Your task to perform on an android device: open sync settings in chrome Image 0: 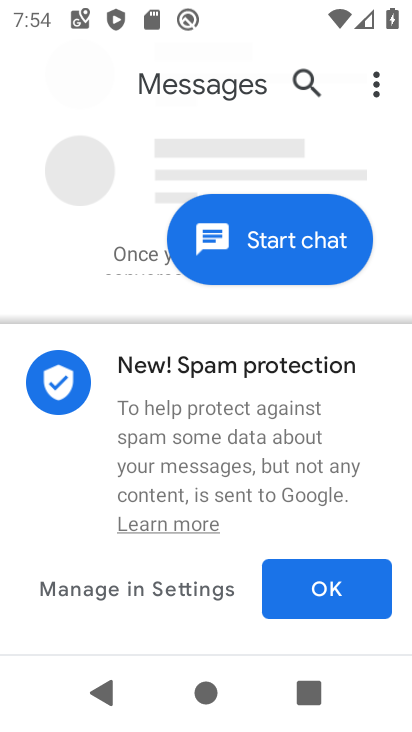
Step 0: press home button
Your task to perform on an android device: open sync settings in chrome Image 1: 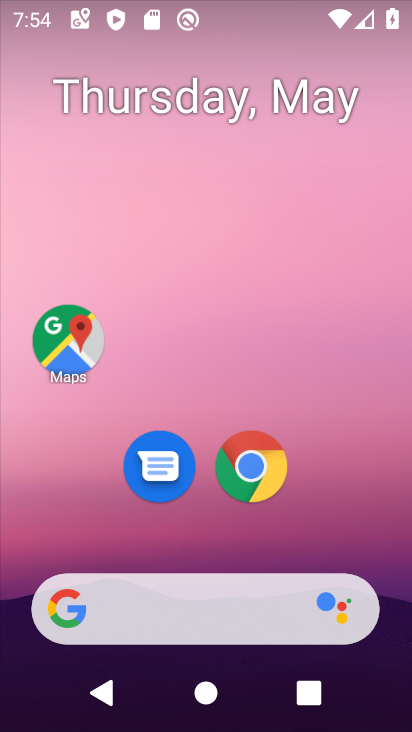
Step 1: click (257, 454)
Your task to perform on an android device: open sync settings in chrome Image 2: 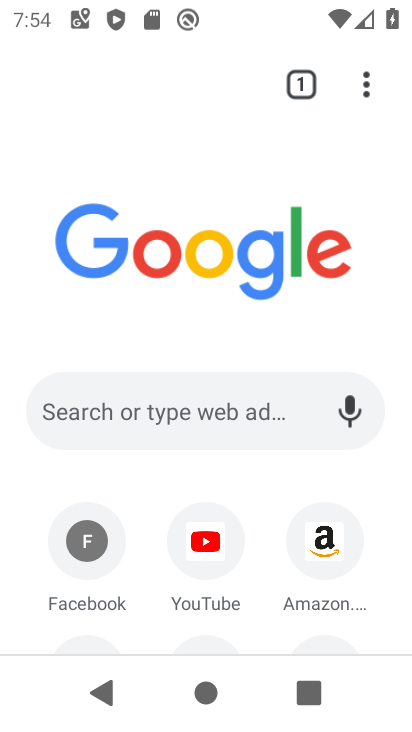
Step 2: click (365, 82)
Your task to perform on an android device: open sync settings in chrome Image 3: 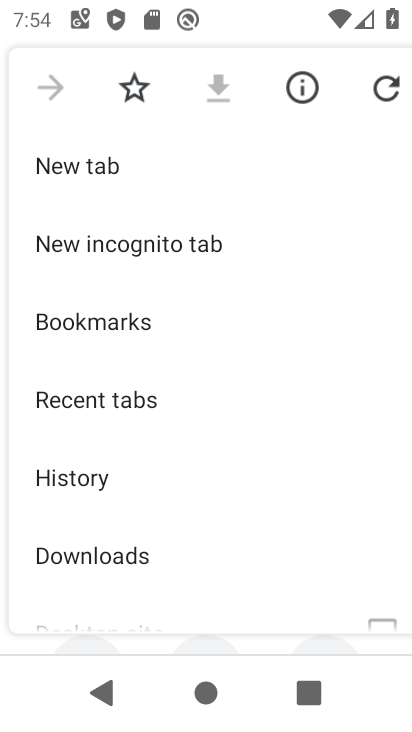
Step 3: drag from (222, 517) to (177, 131)
Your task to perform on an android device: open sync settings in chrome Image 4: 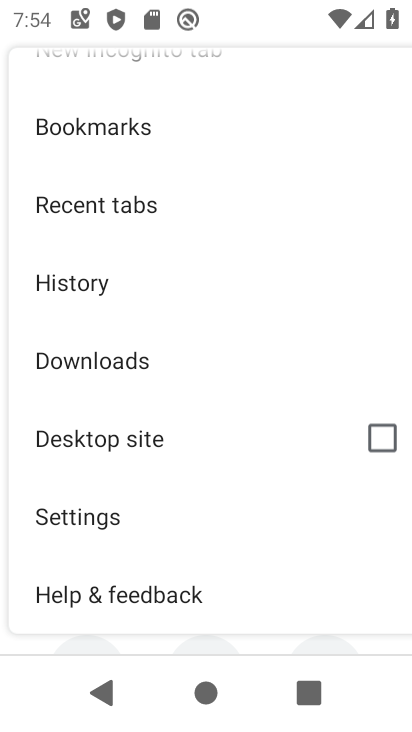
Step 4: click (56, 527)
Your task to perform on an android device: open sync settings in chrome Image 5: 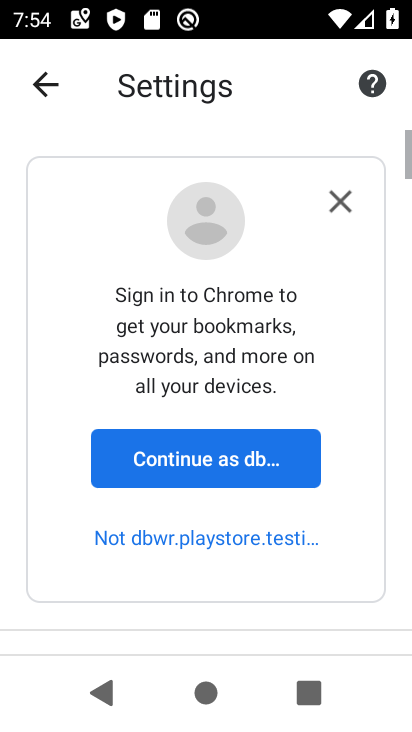
Step 5: click (157, 456)
Your task to perform on an android device: open sync settings in chrome Image 6: 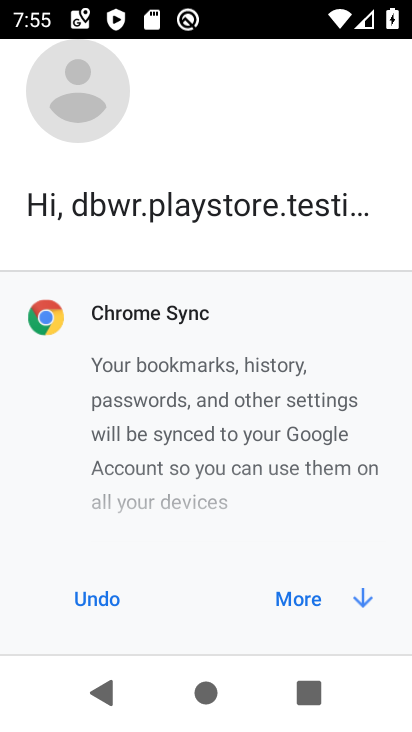
Step 6: click (280, 605)
Your task to perform on an android device: open sync settings in chrome Image 7: 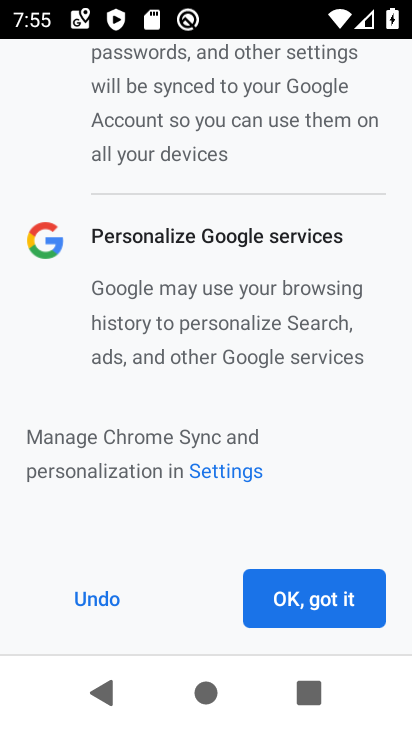
Step 7: click (280, 605)
Your task to perform on an android device: open sync settings in chrome Image 8: 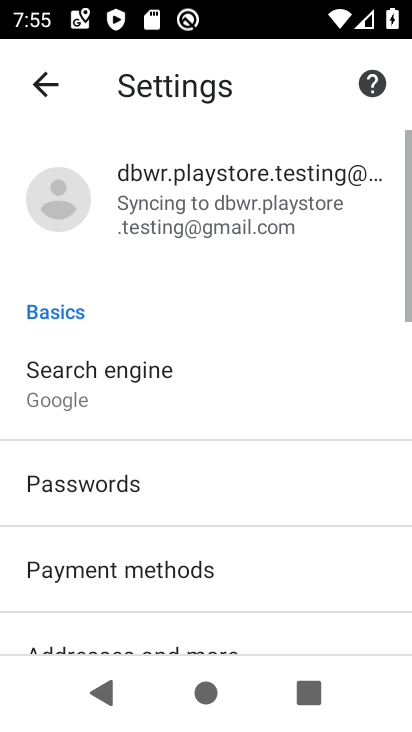
Step 8: click (185, 209)
Your task to perform on an android device: open sync settings in chrome Image 9: 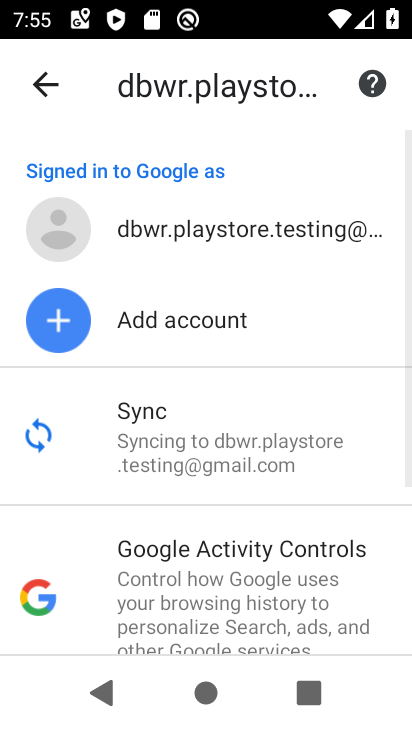
Step 9: click (194, 459)
Your task to perform on an android device: open sync settings in chrome Image 10: 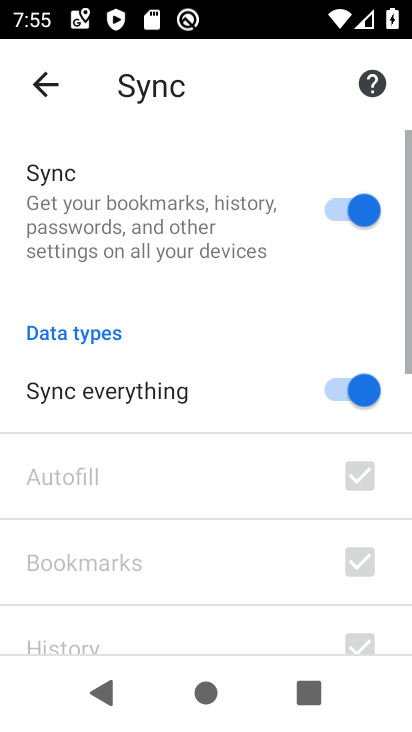
Step 10: task complete